Your task to perform on an android device: remove spam from my inbox in the gmail app Image 0: 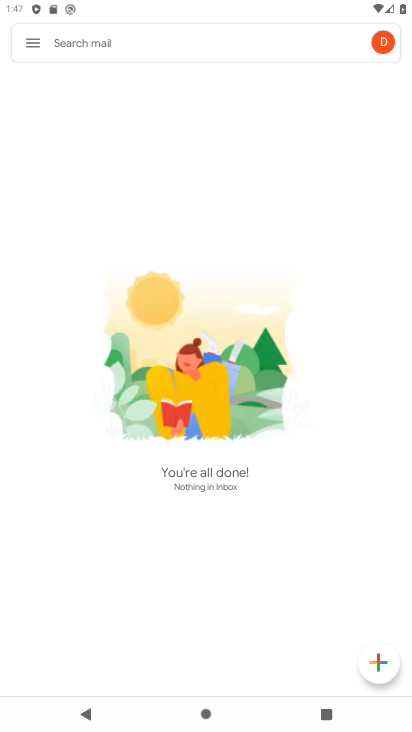
Step 0: click (29, 47)
Your task to perform on an android device: remove spam from my inbox in the gmail app Image 1: 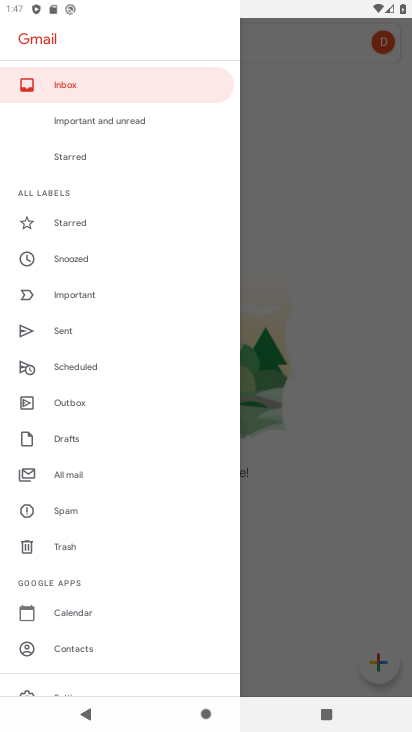
Step 1: click (61, 512)
Your task to perform on an android device: remove spam from my inbox in the gmail app Image 2: 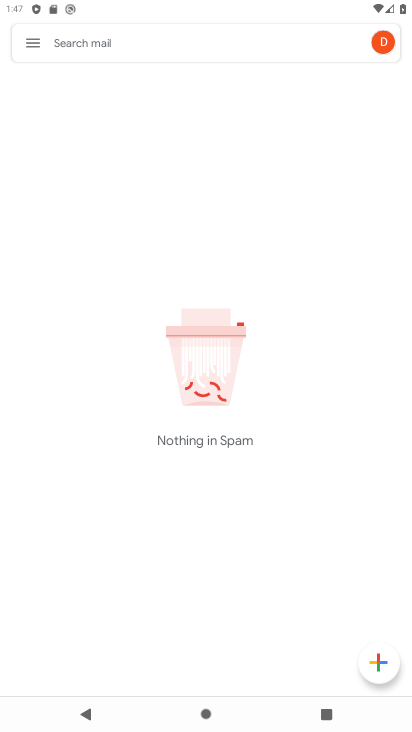
Step 2: task complete